Your task to perform on an android device: Go to accessibility settings Image 0: 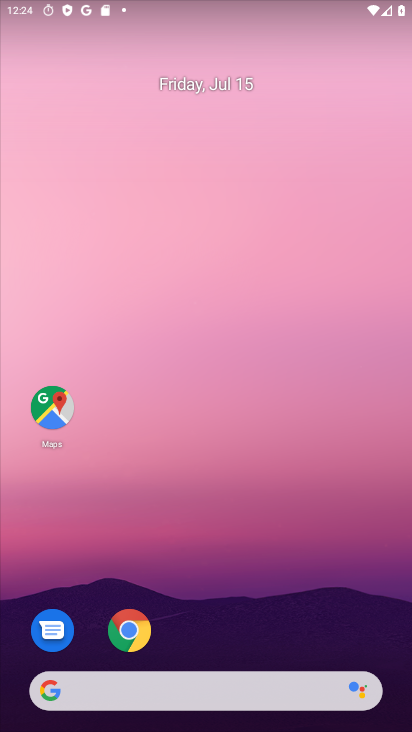
Step 0: drag from (182, 630) to (224, 14)
Your task to perform on an android device: Go to accessibility settings Image 1: 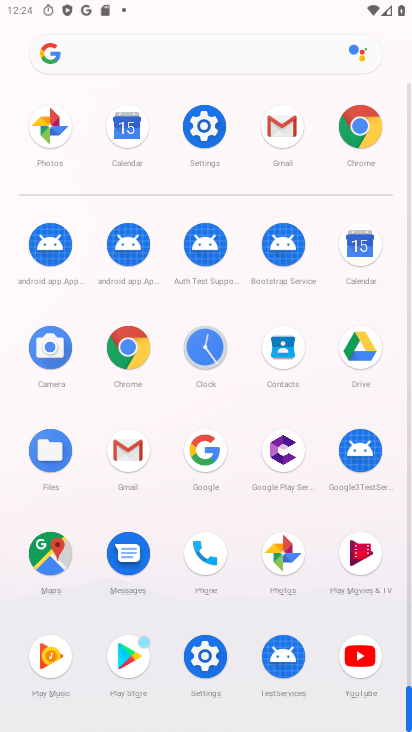
Step 1: click (215, 119)
Your task to perform on an android device: Go to accessibility settings Image 2: 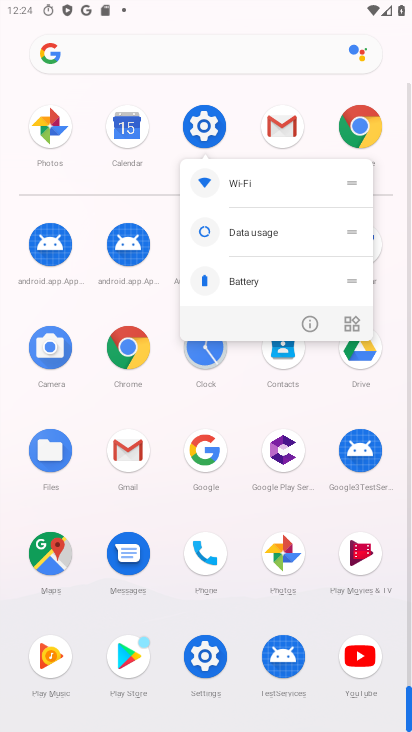
Step 2: click (306, 321)
Your task to perform on an android device: Go to accessibility settings Image 3: 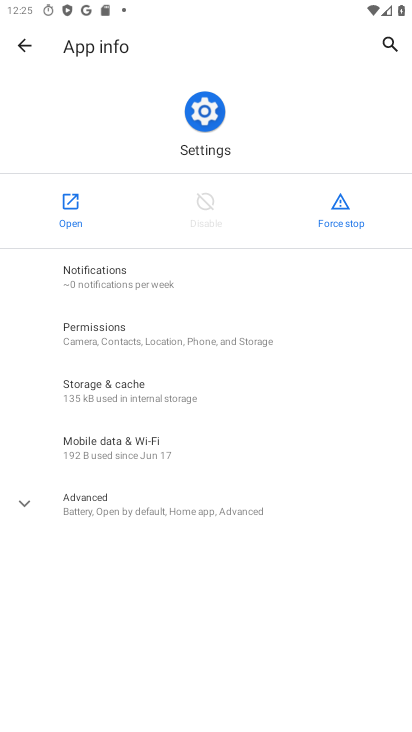
Step 3: click (77, 187)
Your task to perform on an android device: Go to accessibility settings Image 4: 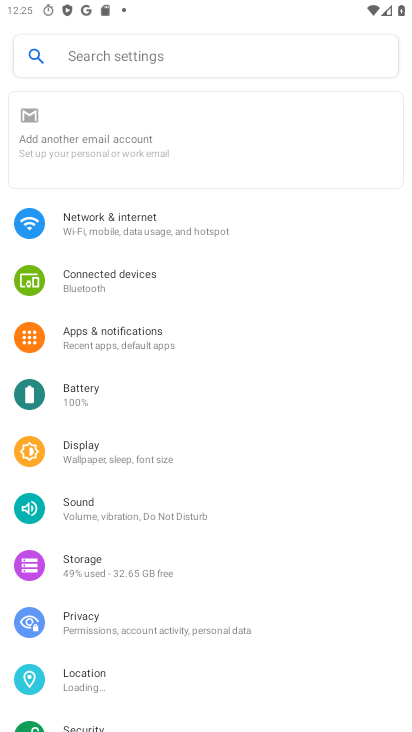
Step 4: drag from (227, 491) to (227, 293)
Your task to perform on an android device: Go to accessibility settings Image 5: 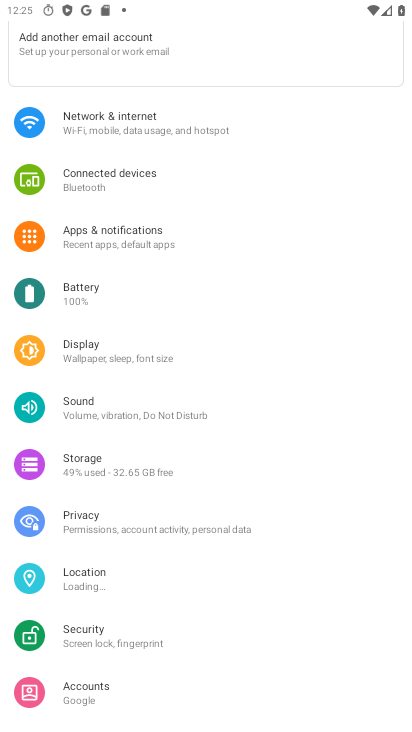
Step 5: drag from (195, 646) to (230, 309)
Your task to perform on an android device: Go to accessibility settings Image 6: 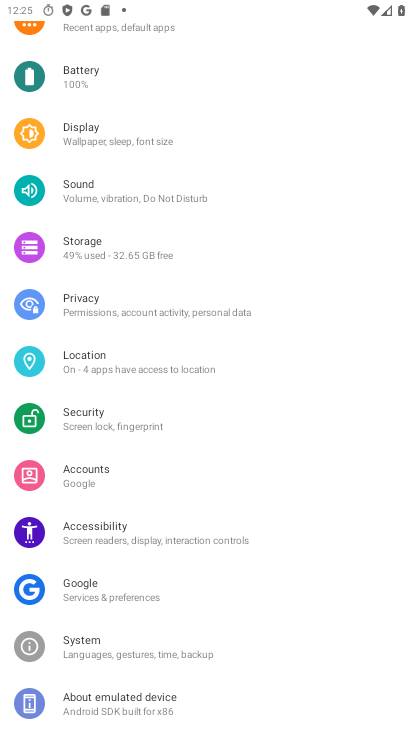
Step 6: drag from (175, 180) to (238, 516)
Your task to perform on an android device: Go to accessibility settings Image 7: 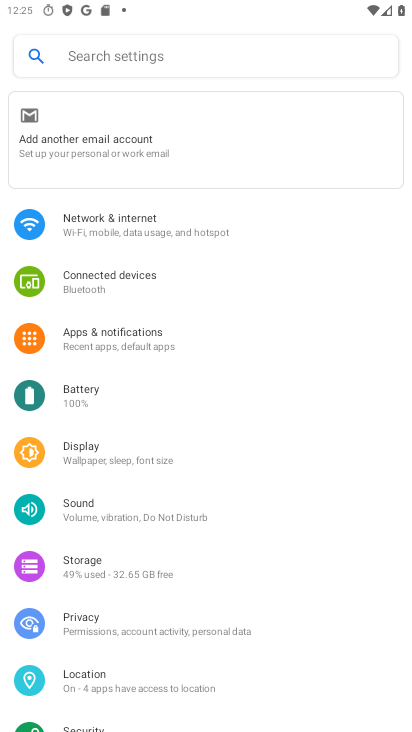
Step 7: drag from (185, 612) to (278, 66)
Your task to perform on an android device: Go to accessibility settings Image 8: 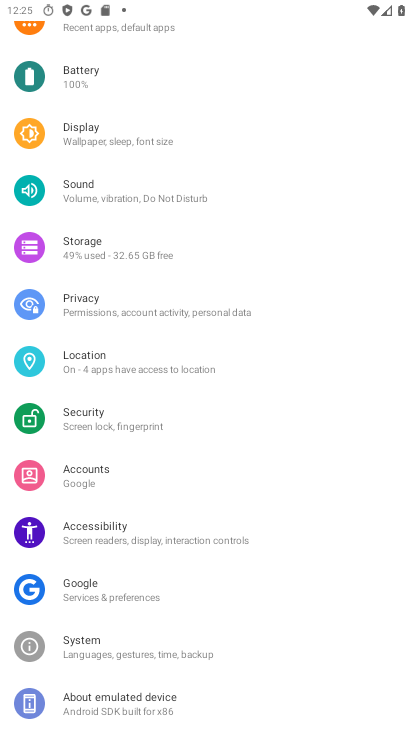
Step 8: click (87, 534)
Your task to perform on an android device: Go to accessibility settings Image 9: 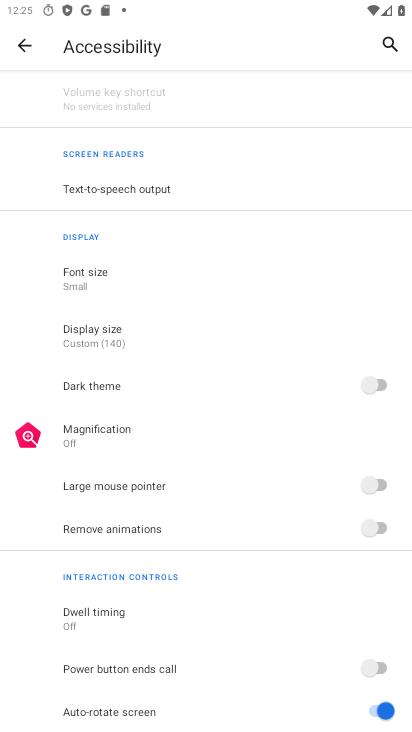
Step 9: task complete